Your task to perform on an android device: clear all cookies in the chrome app Image 0: 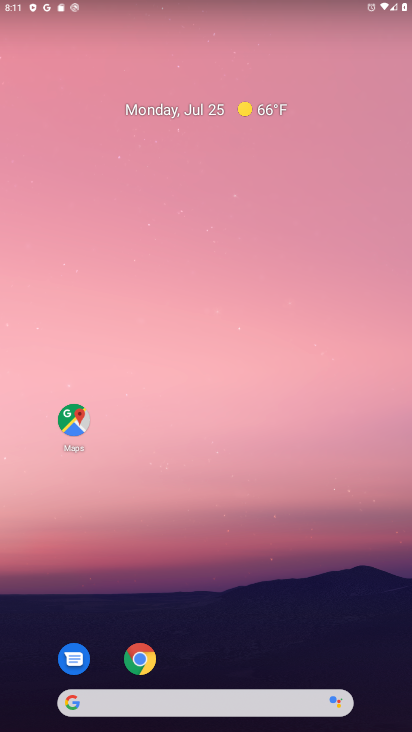
Step 0: drag from (244, 648) to (162, 198)
Your task to perform on an android device: clear all cookies in the chrome app Image 1: 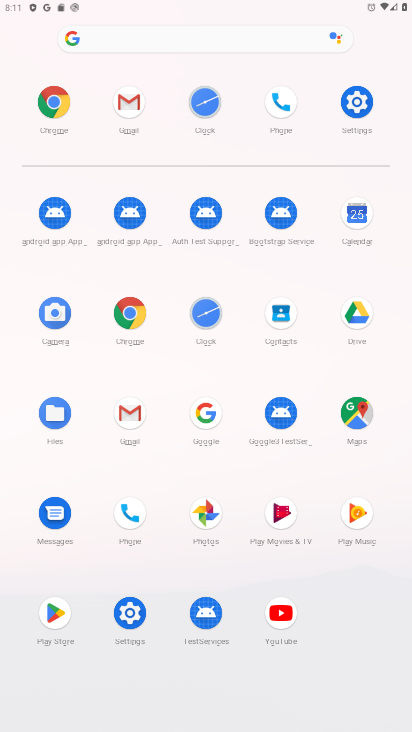
Step 1: click (125, 305)
Your task to perform on an android device: clear all cookies in the chrome app Image 2: 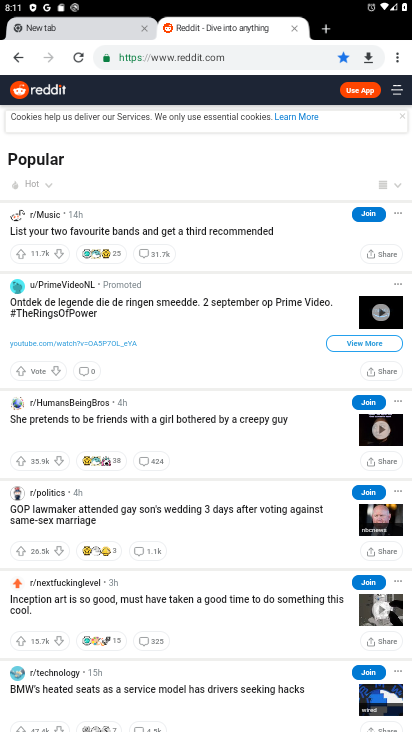
Step 2: click (394, 52)
Your task to perform on an android device: clear all cookies in the chrome app Image 3: 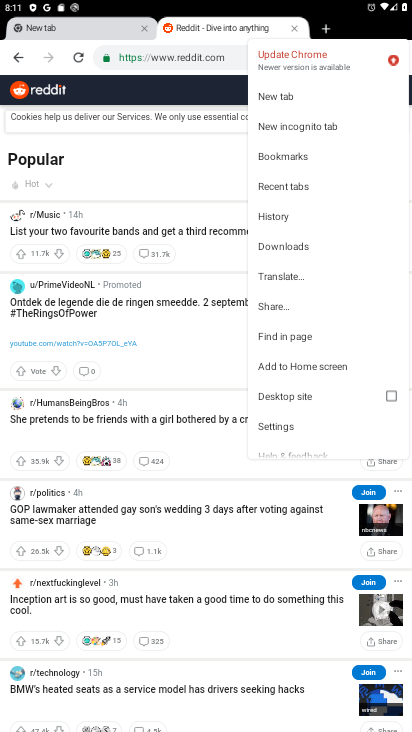
Step 3: click (281, 224)
Your task to perform on an android device: clear all cookies in the chrome app Image 4: 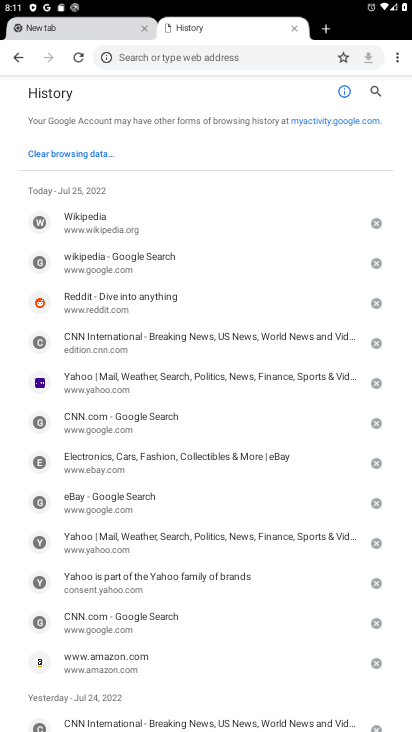
Step 4: click (52, 154)
Your task to perform on an android device: clear all cookies in the chrome app Image 5: 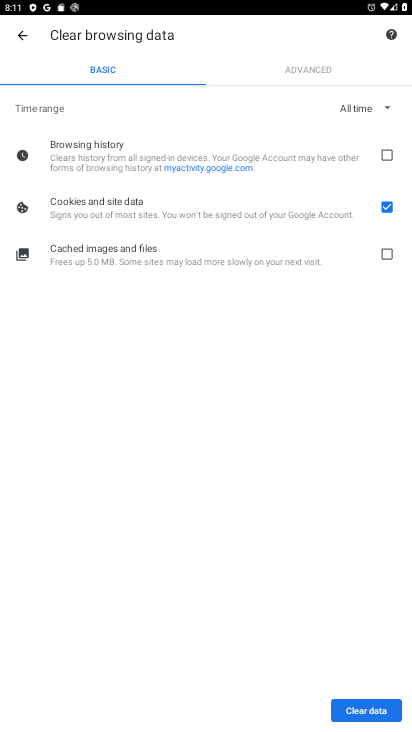
Step 5: click (376, 252)
Your task to perform on an android device: clear all cookies in the chrome app Image 6: 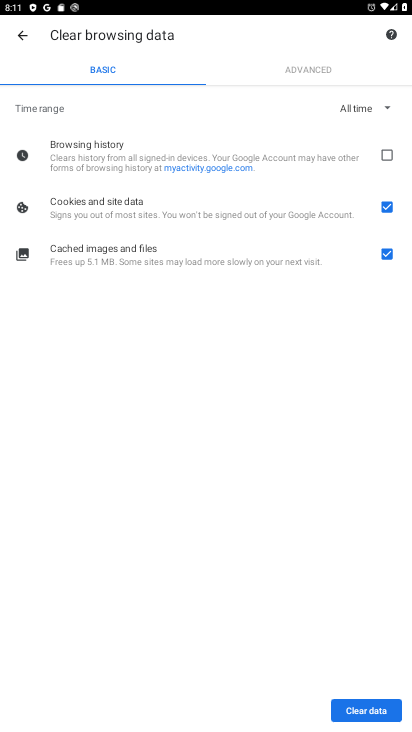
Step 6: click (328, 714)
Your task to perform on an android device: clear all cookies in the chrome app Image 7: 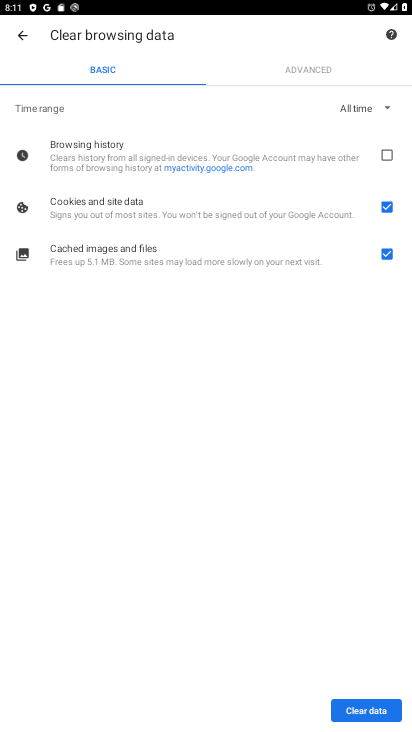
Step 7: click (357, 712)
Your task to perform on an android device: clear all cookies in the chrome app Image 8: 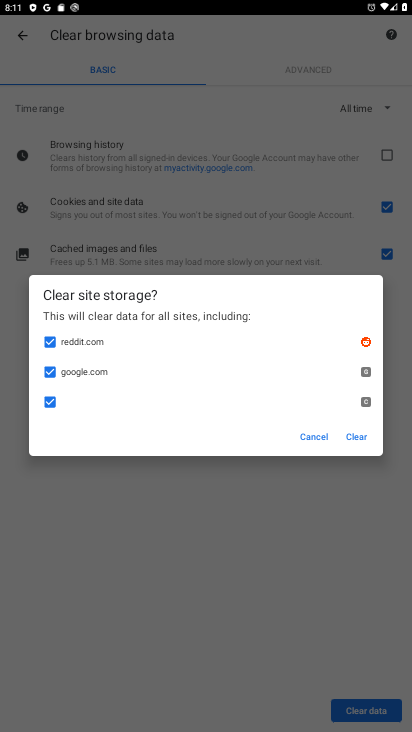
Step 8: click (351, 426)
Your task to perform on an android device: clear all cookies in the chrome app Image 9: 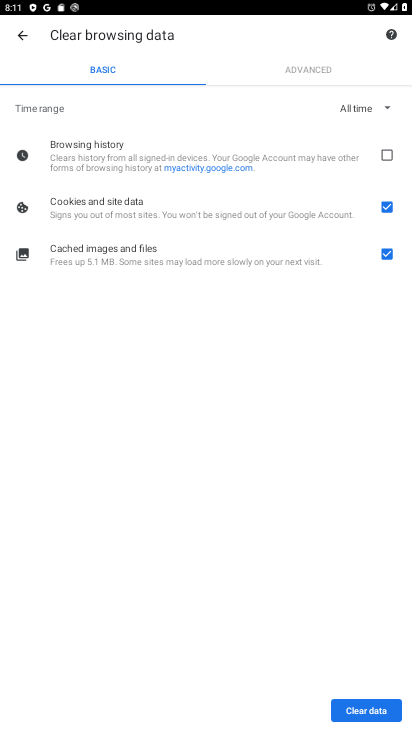
Step 9: task complete